Your task to perform on an android device: change text size in settings app Image 0: 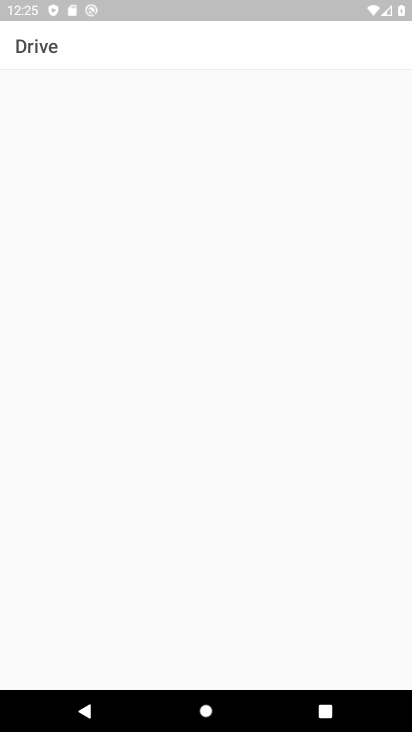
Step 0: press home button
Your task to perform on an android device: change text size in settings app Image 1: 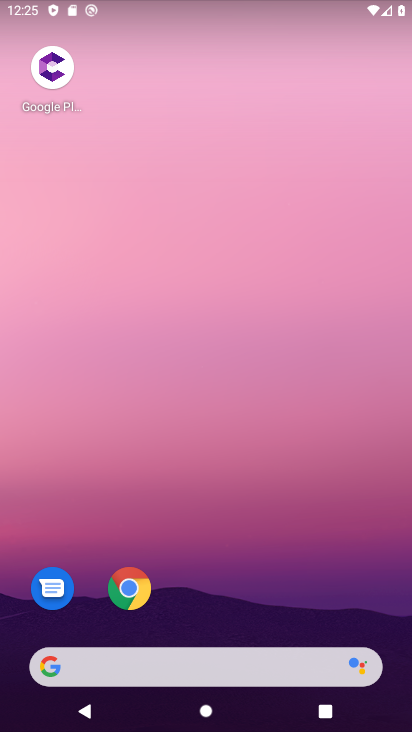
Step 1: drag from (222, 629) to (163, 107)
Your task to perform on an android device: change text size in settings app Image 2: 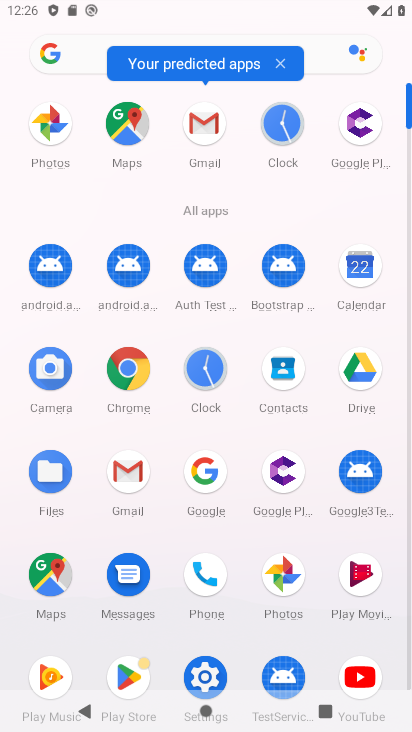
Step 2: click (289, 584)
Your task to perform on an android device: change text size in settings app Image 3: 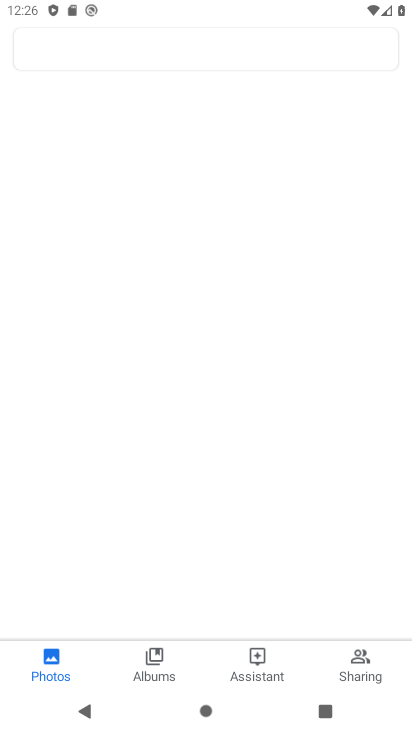
Step 3: press home button
Your task to perform on an android device: change text size in settings app Image 4: 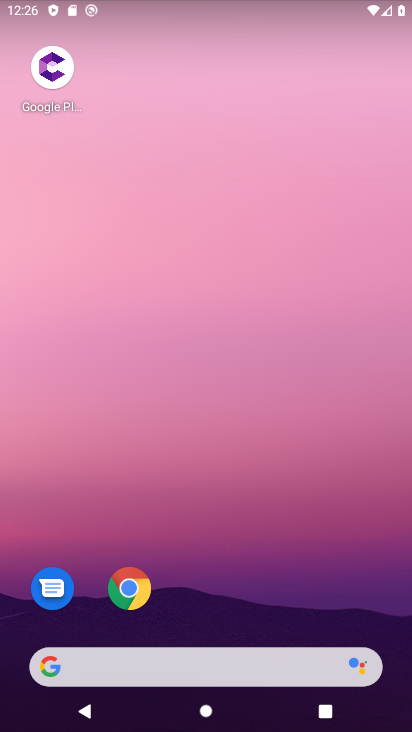
Step 4: drag from (198, 621) to (105, 3)
Your task to perform on an android device: change text size in settings app Image 5: 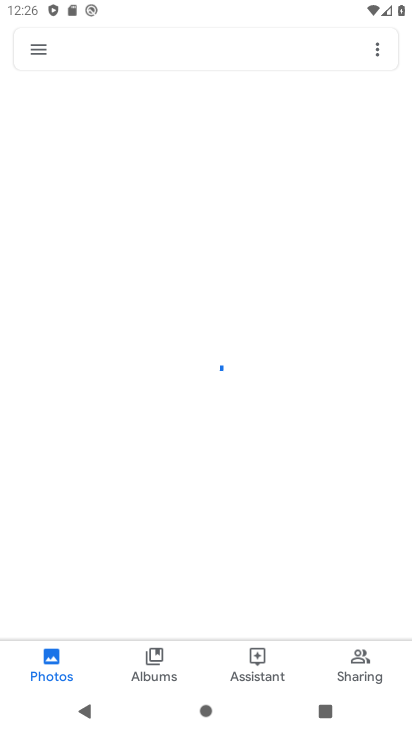
Step 5: press home button
Your task to perform on an android device: change text size in settings app Image 6: 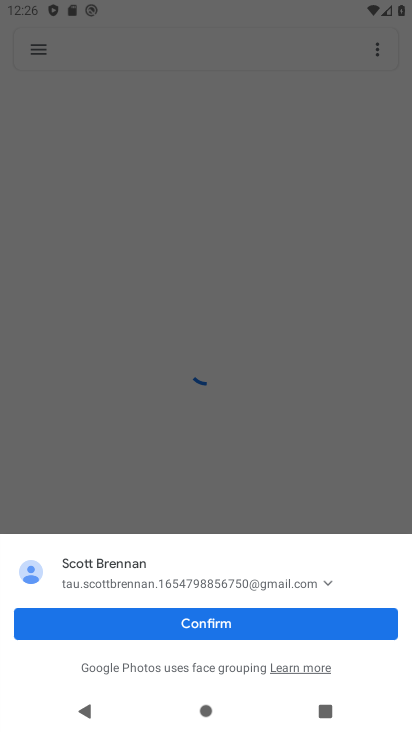
Step 6: drag from (105, 3) to (375, 651)
Your task to perform on an android device: change text size in settings app Image 7: 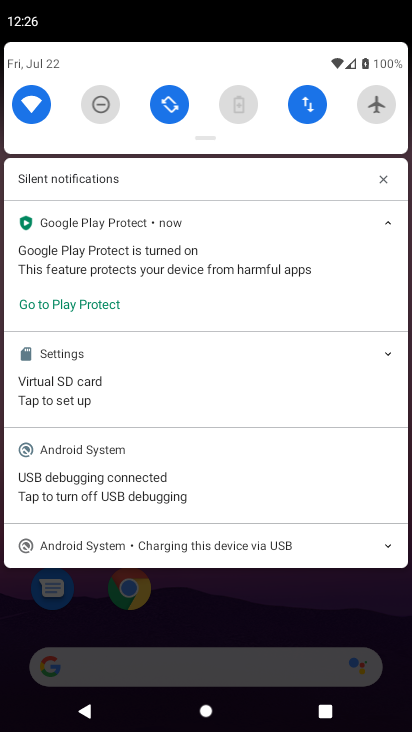
Step 7: drag from (235, 634) to (212, 50)
Your task to perform on an android device: change text size in settings app Image 8: 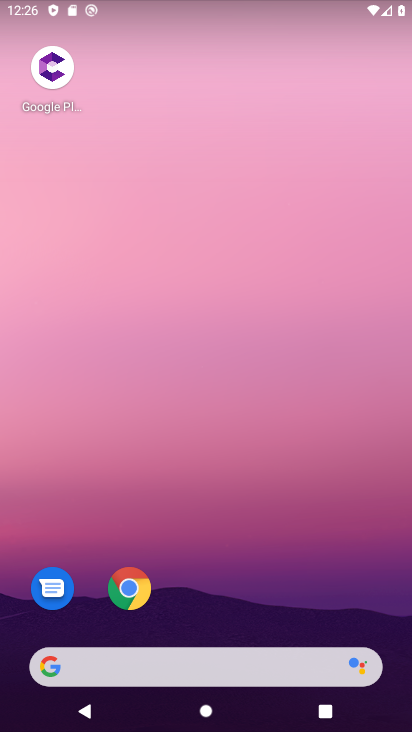
Step 8: drag from (193, 610) to (166, 177)
Your task to perform on an android device: change text size in settings app Image 9: 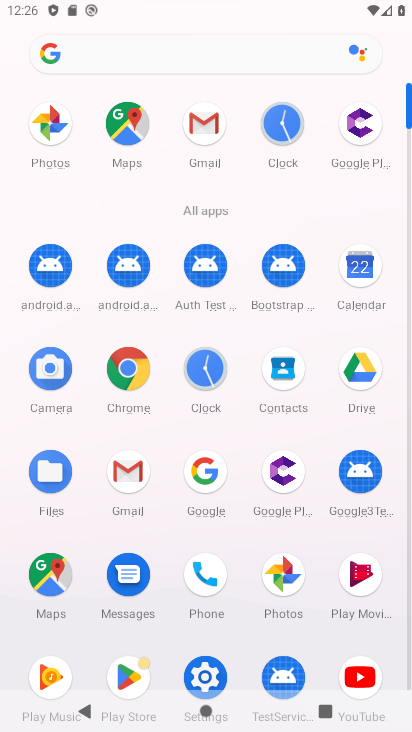
Step 9: click (210, 658)
Your task to perform on an android device: change text size in settings app Image 10: 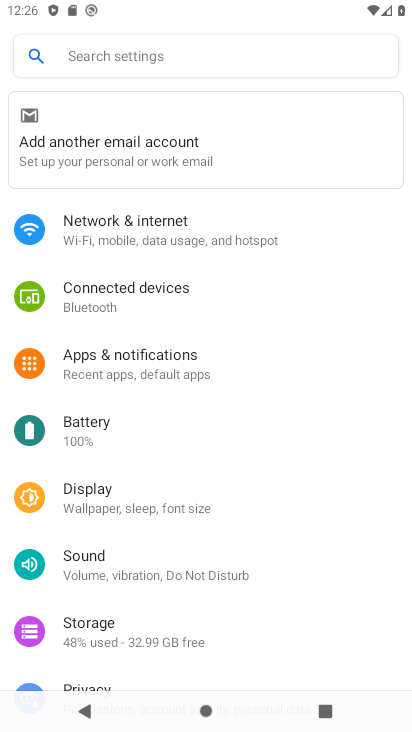
Step 10: click (93, 520)
Your task to perform on an android device: change text size in settings app Image 11: 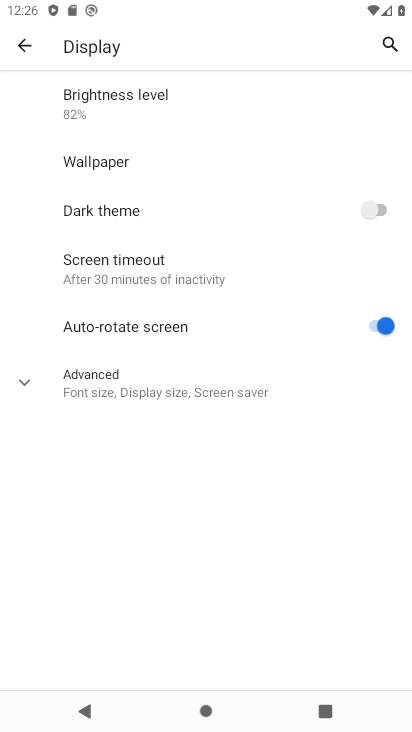
Step 11: click (85, 395)
Your task to perform on an android device: change text size in settings app Image 12: 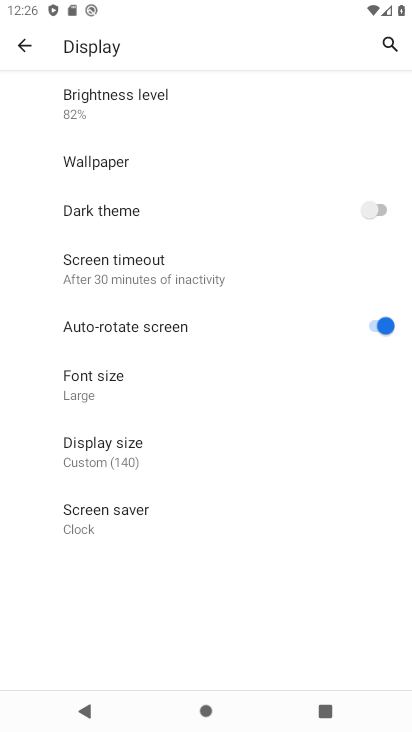
Step 12: click (103, 382)
Your task to perform on an android device: change text size in settings app Image 13: 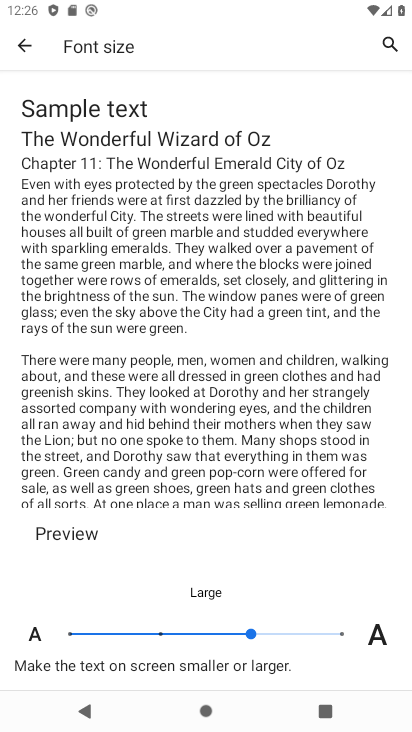
Step 13: click (153, 634)
Your task to perform on an android device: change text size in settings app Image 14: 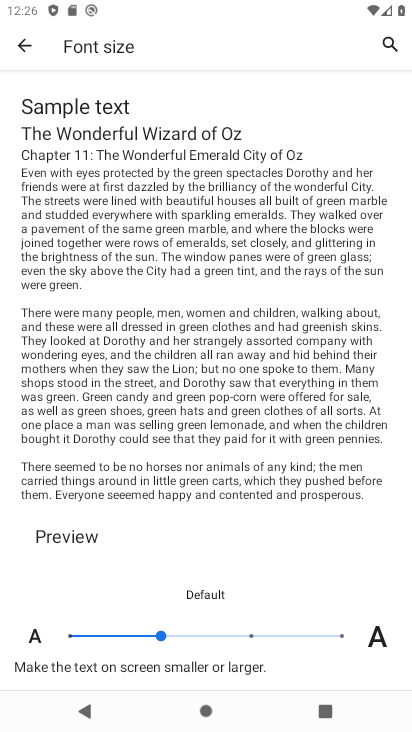
Step 14: task complete